Your task to perform on an android device: turn off notifications settings in the gmail app Image 0: 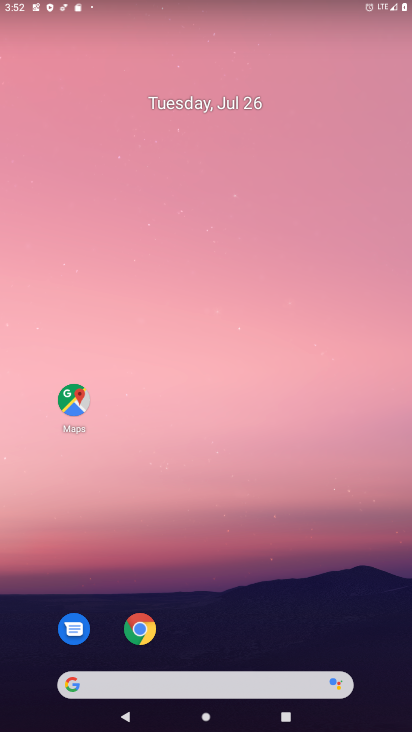
Step 0: drag from (240, 722) to (225, 37)
Your task to perform on an android device: turn off notifications settings in the gmail app Image 1: 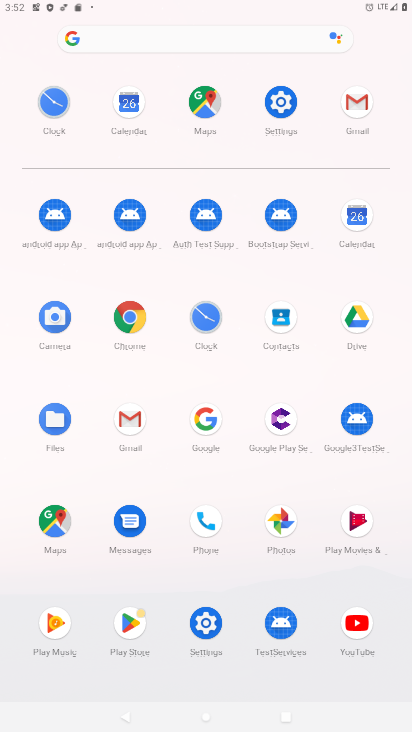
Step 1: click (126, 420)
Your task to perform on an android device: turn off notifications settings in the gmail app Image 2: 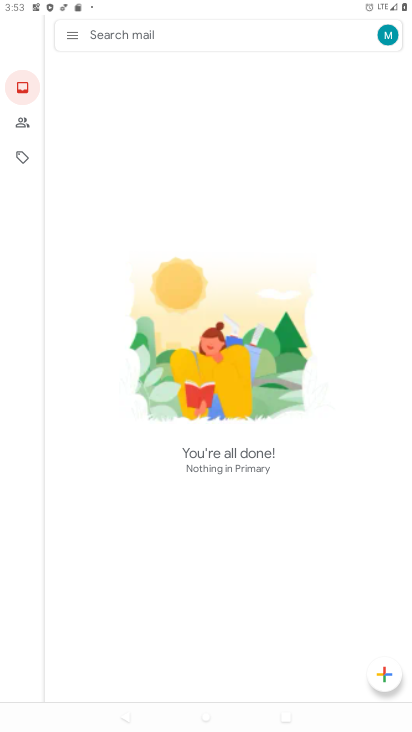
Step 2: click (76, 34)
Your task to perform on an android device: turn off notifications settings in the gmail app Image 3: 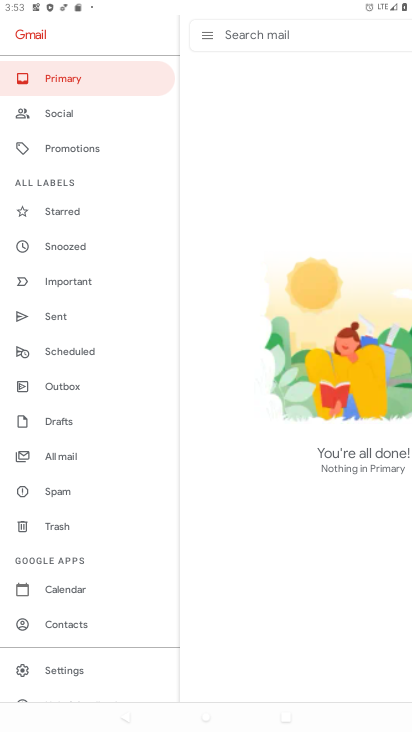
Step 3: click (61, 666)
Your task to perform on an android device: turn off notifications settings in the gmail app Image 4: 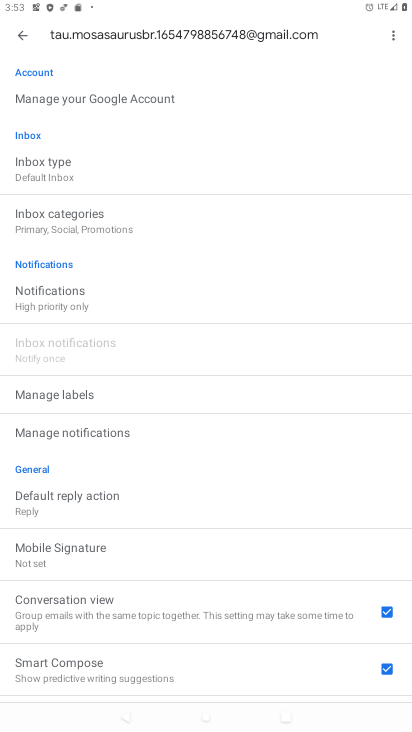
Step 4: click (53, 289)
Your task to perform on an android device: turn off notifications settings in the gmail app Image 5: 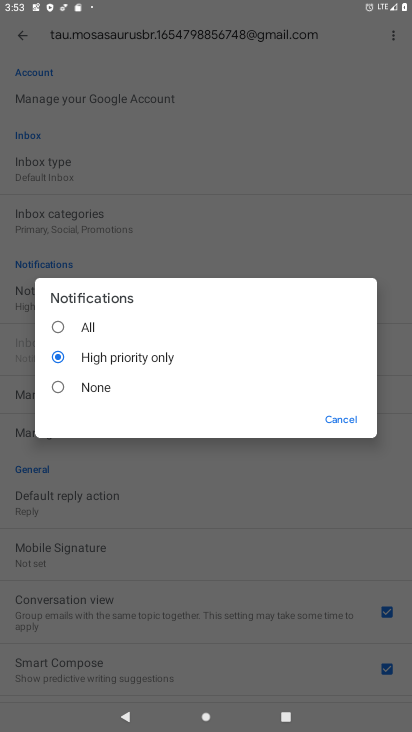
Step 5: click (61, 385)
Your task to perform on an android device: turn off notifications settings in the gmail app Image 6: 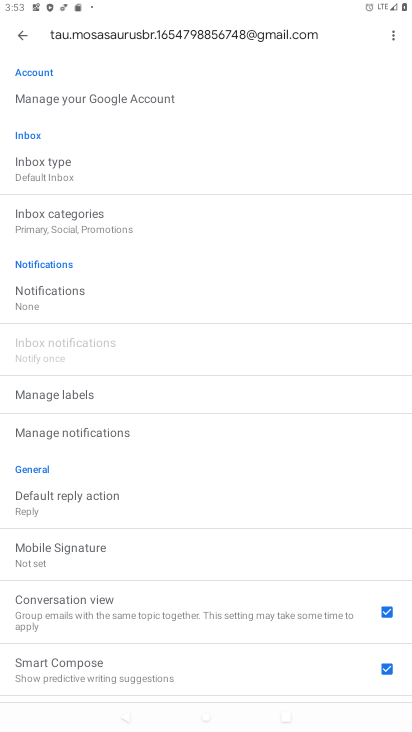
Step 6: task complete